Your task to perform on an android device: Toggle the flashlight Image 0: 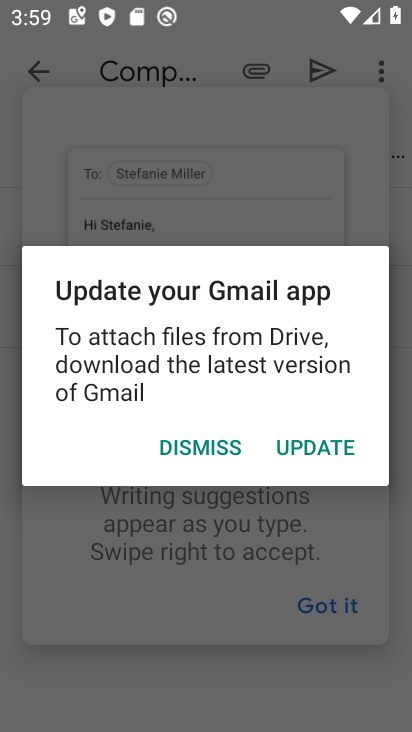
Step 0: press home button
Your task to perform on an android device: Toggle the flashlight Image 1: 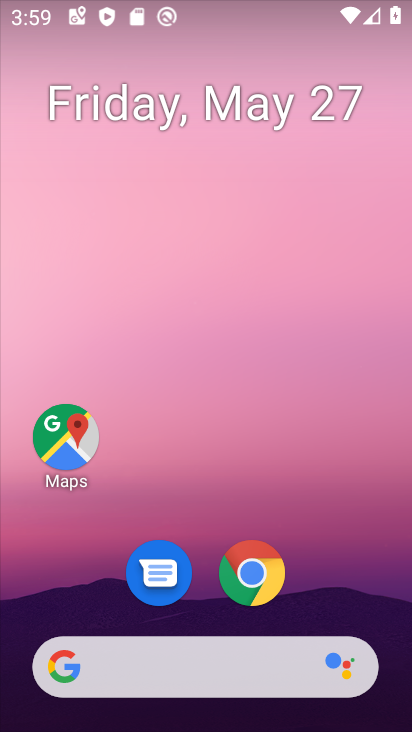
Step 1: drag from (312, 8) to (283, 413)
Your task to perform on an android device: Toggle the flashlight Image 2: 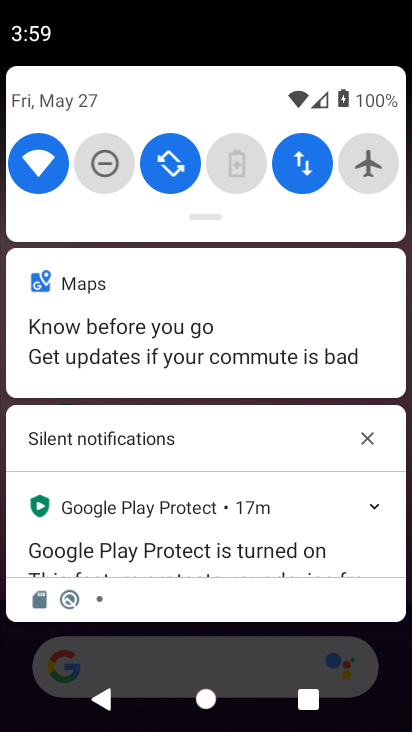
Step 2: drag from (203, 92) to (198, 378)
Your task to perform on an android device: Toggle the flashlight Image 3: 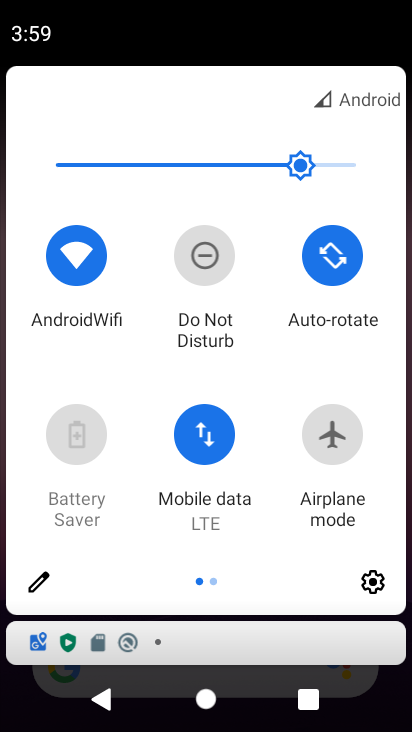
Step 3: click (70, 597)
Your task to perform on an android device: Toggle the flashlight Image 4: 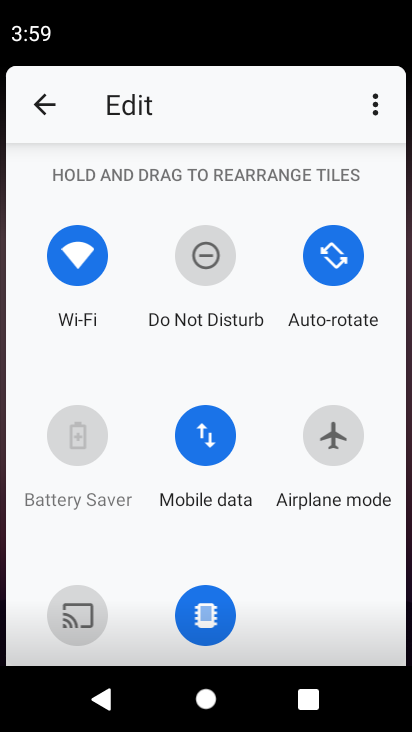
Step 4: task complete